Your task to perform on an android device: Search for "logitech g pro" on ebay, select the first entry, and add it to the cart. Image 0: 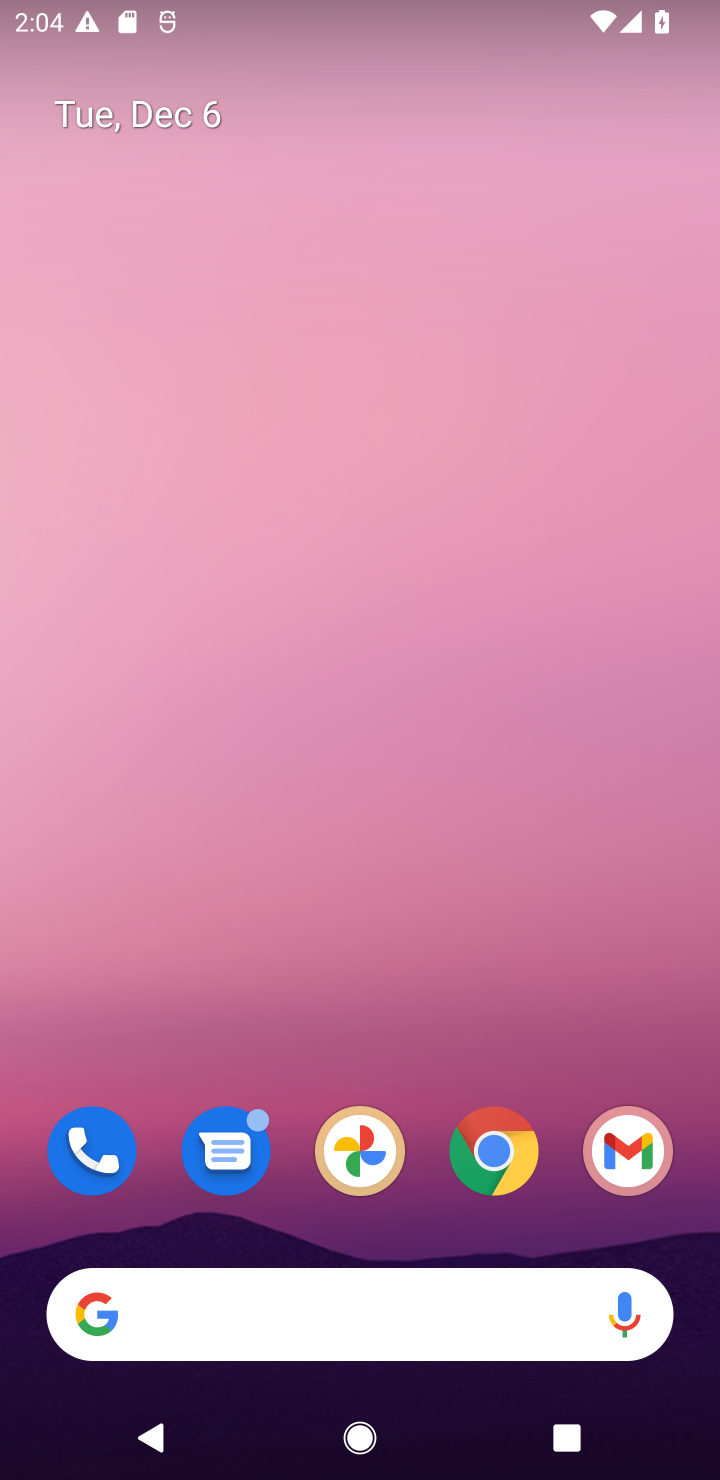
Step 0: click (498, 1150)
Your task to perform on an android device: Search for "logitech g pro" on ebay, select the first entry, and add it to the cart. Image 1: 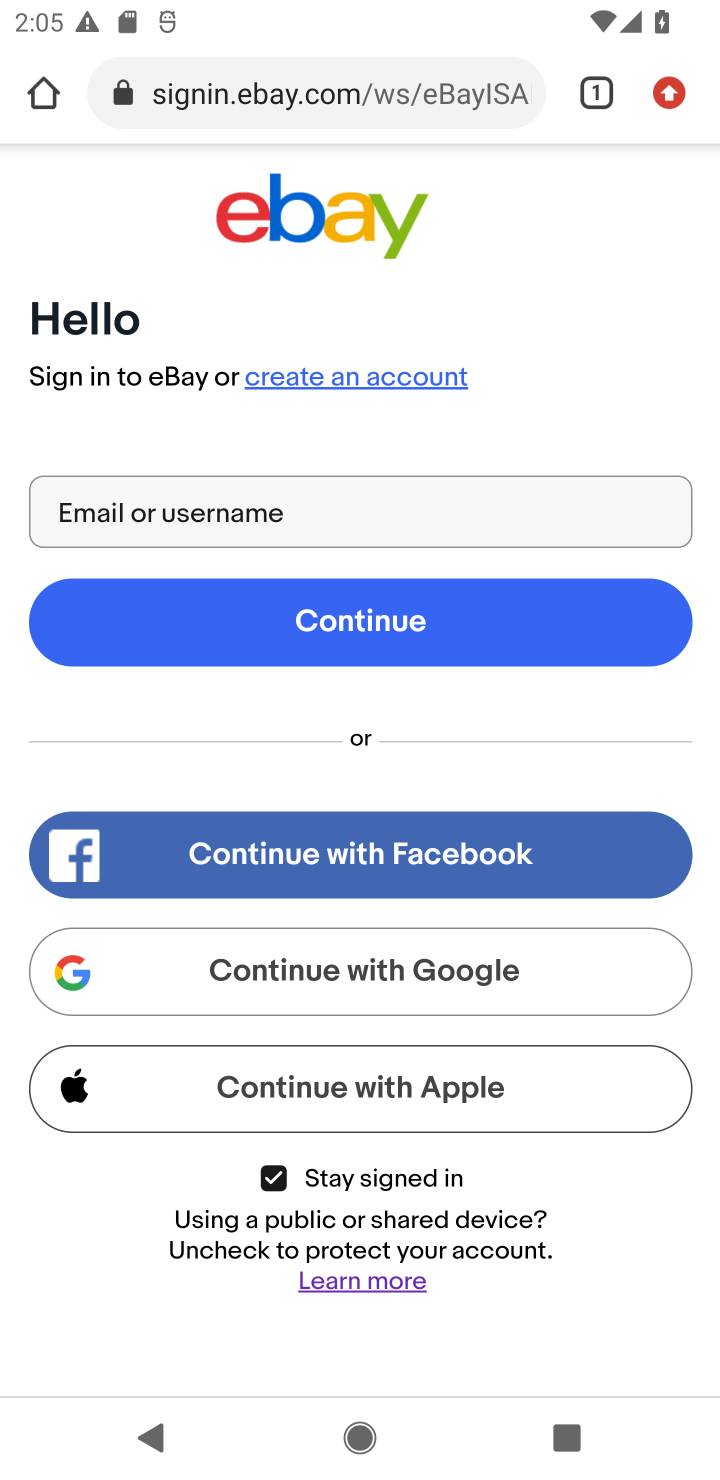
Step 1: press back button
Your task to perform on an android device: Search for "logitech g pro" on ebay, select the first entry, and add it to the cart. Image 2: 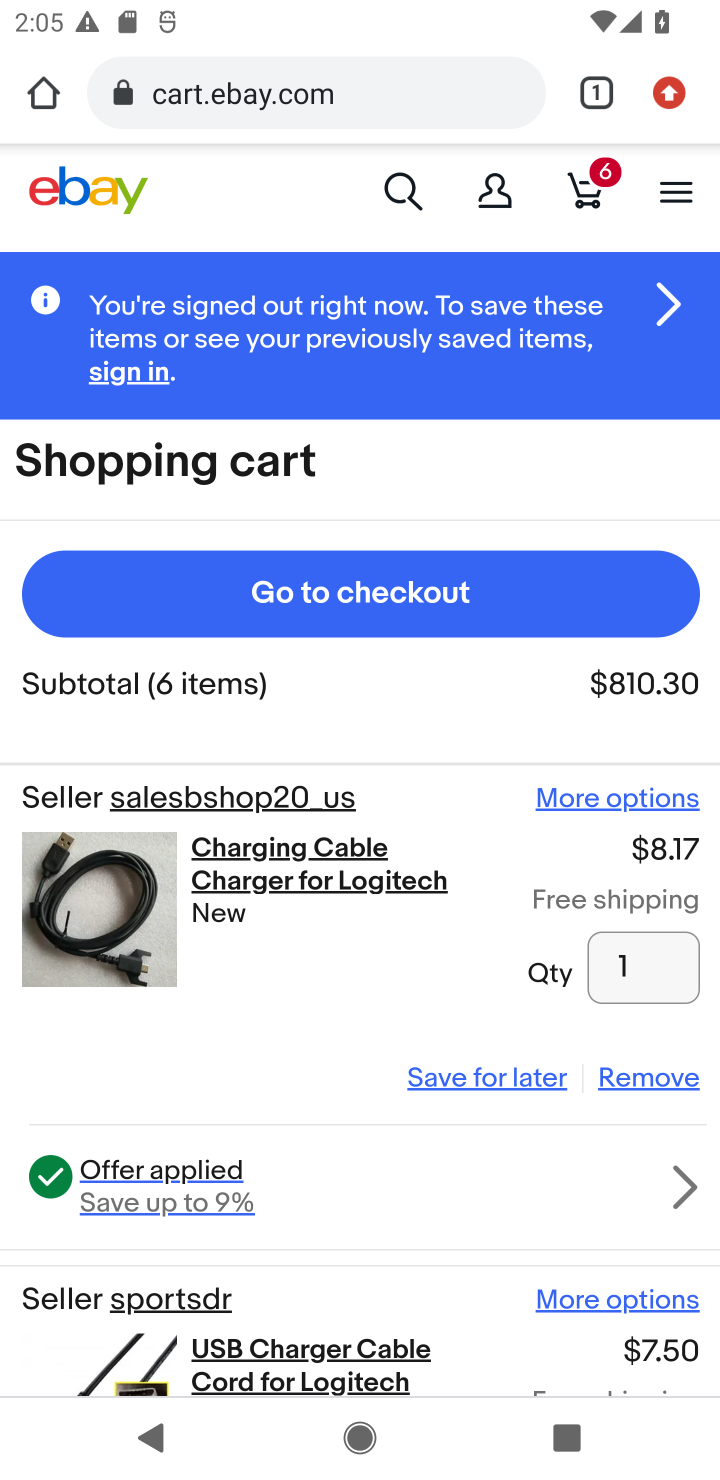
Step 2: click (398, 195)
Your task to perform on an android device: Search for "logitech g pro" on ebay, select the first entry, and add it to the cart. Image 3: 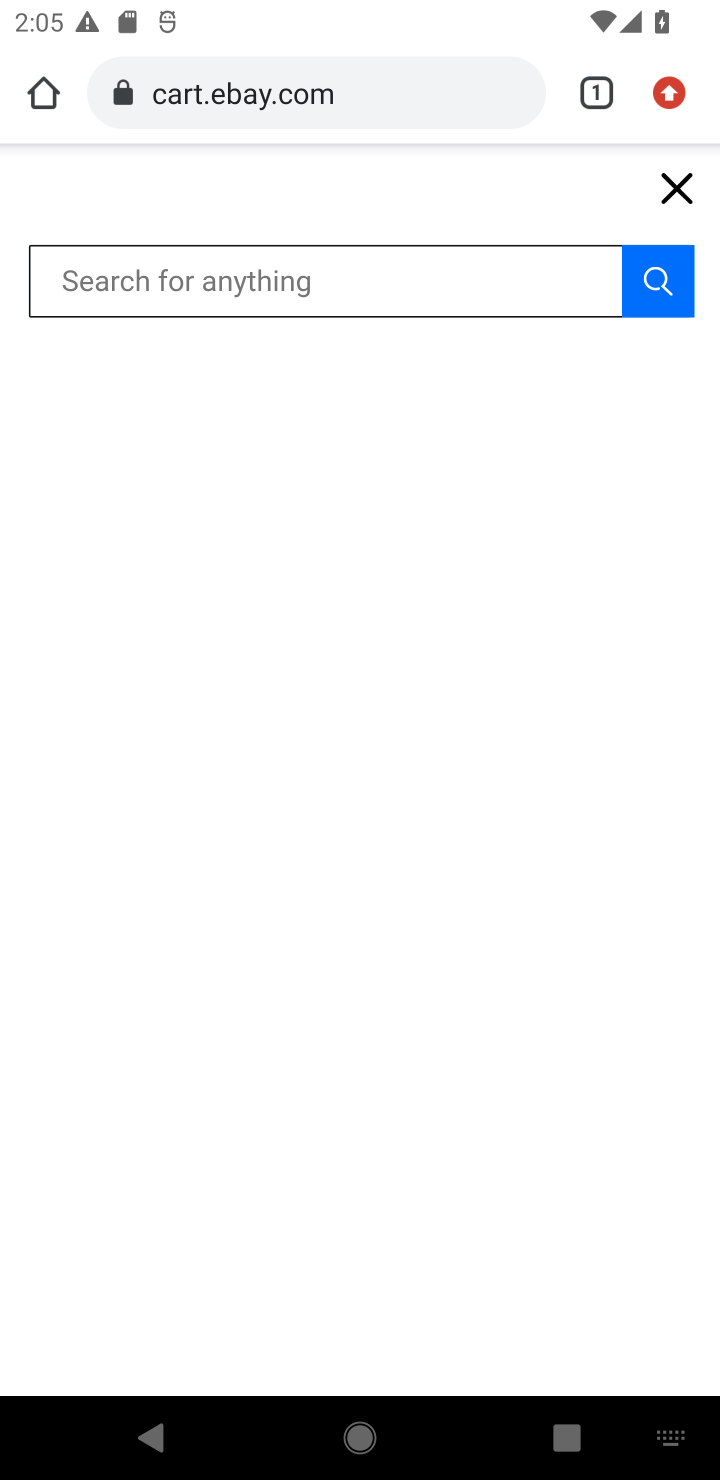
Step 3: type "logitech g pro"
Your task to perform on an android device: Search for "logitech g pro" on ebay, select the first entry, and add it to the cart. Image 4: 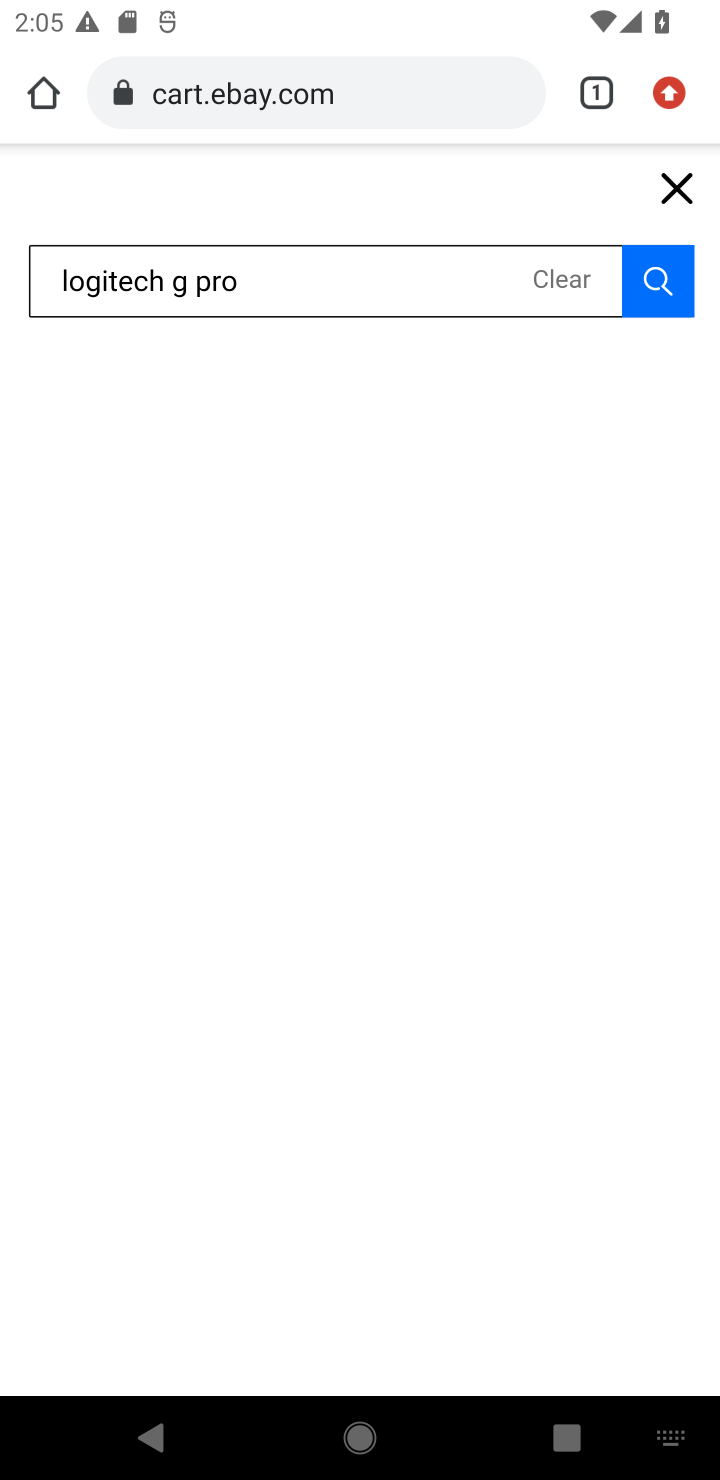
Step 4: click (653, 294)
Your task to perform on an android device: Search for "logitech g pro" on ebay, select the first entry, and add it to the cart. Image 5: 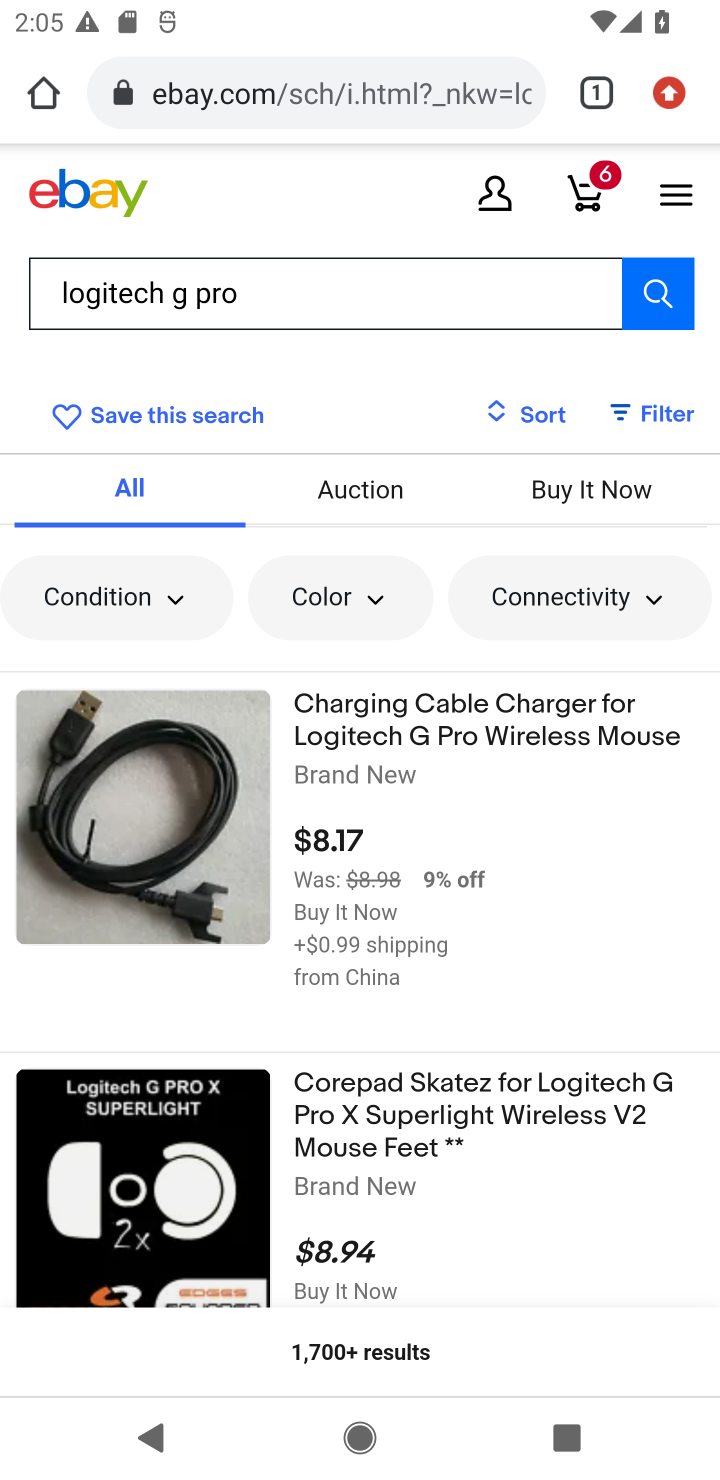
Step 5: click (399, 788)
Your task to perform on an android device: Search for "logitech g pro" on ebay, select the first entry, and add it to the cart. Image 6: 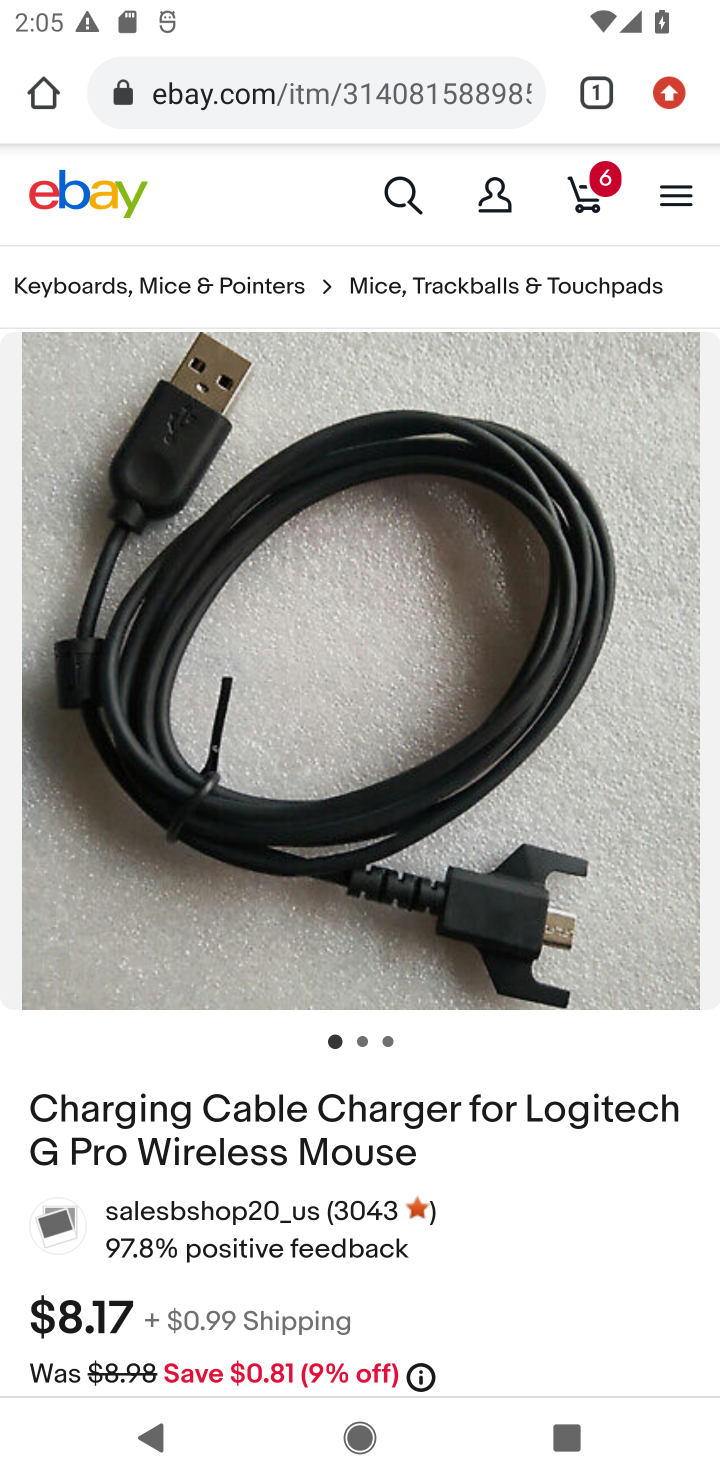
Step 6: task complete